Your task to perform on an android device: set an alarm Image 0: 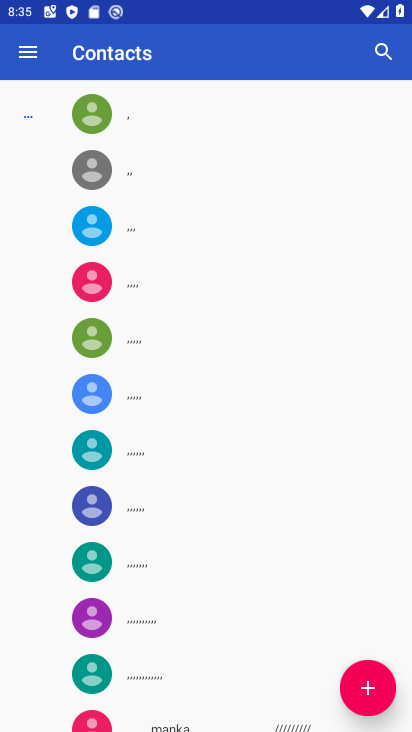
Step 0: press home button
Your task to perform on an android device: set an alarm Image 1: 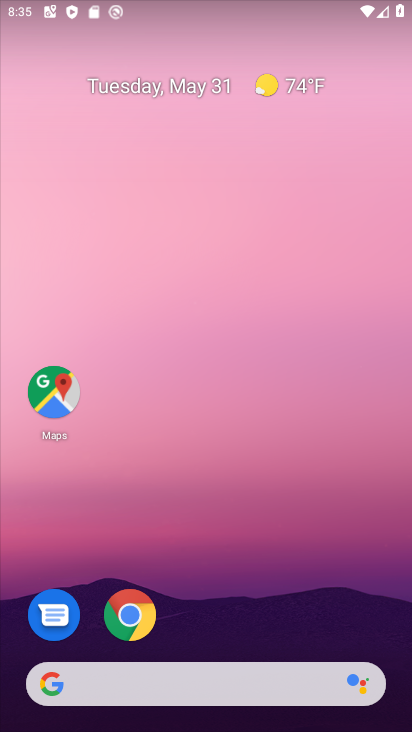
Step 1: drag from (223, 643) to (219, 181)
Your task to perform on an android device: set an alarm Image 2: 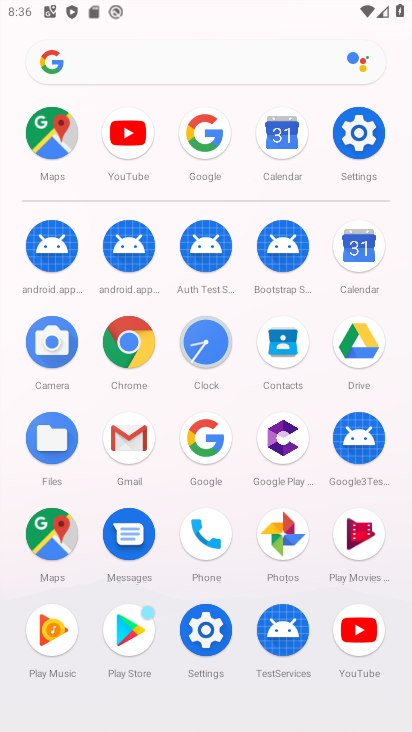
Step 2: click (204, 355)
Your task to perform on an android device: set an alarm Image 3: 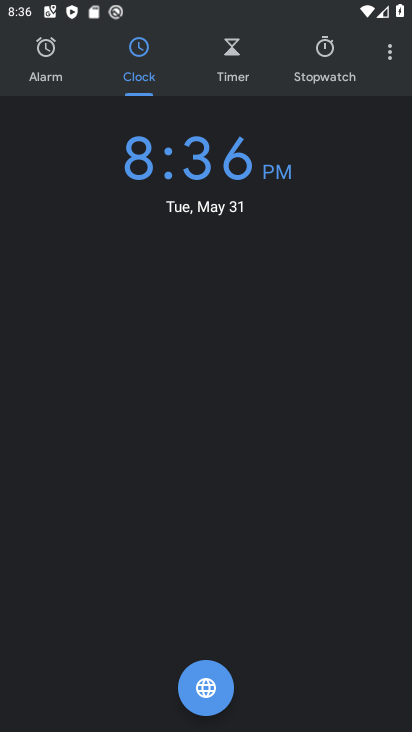
Step 3: click (49, 53)
Your task to perform on an android device: set an alarm Image 4: 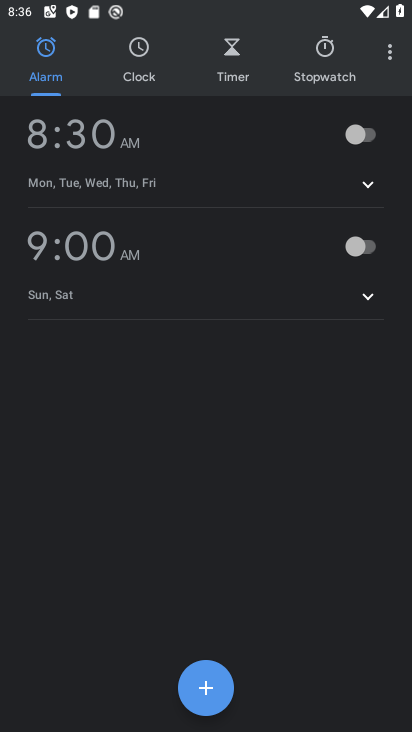
Step 4: click (367, 135)
Your task to perform on an android device: set an alarm Image 5: 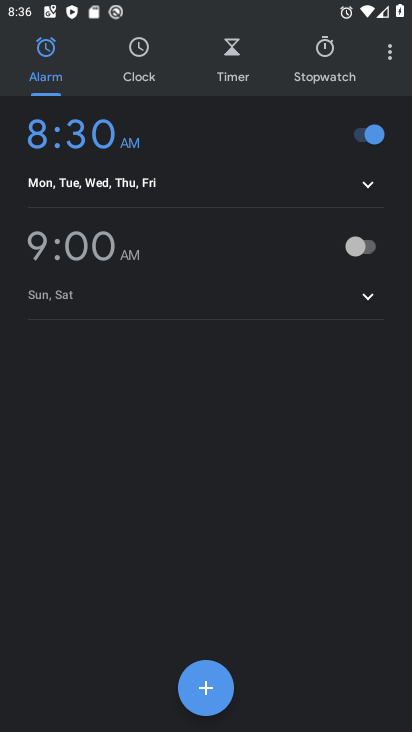
Step 5: task complete